Your task to perform on an android device: Search for Mexican restaurants on Maps Image 0: 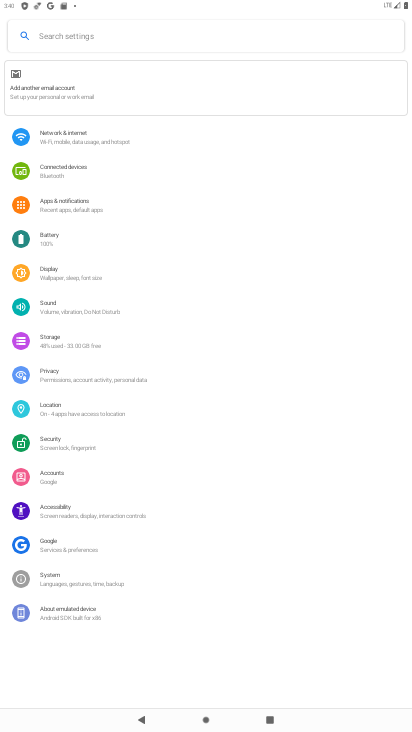
Step 0: press home button
Your task to perform on an android device: Search for Mexican restaurants on Maps Image 1: 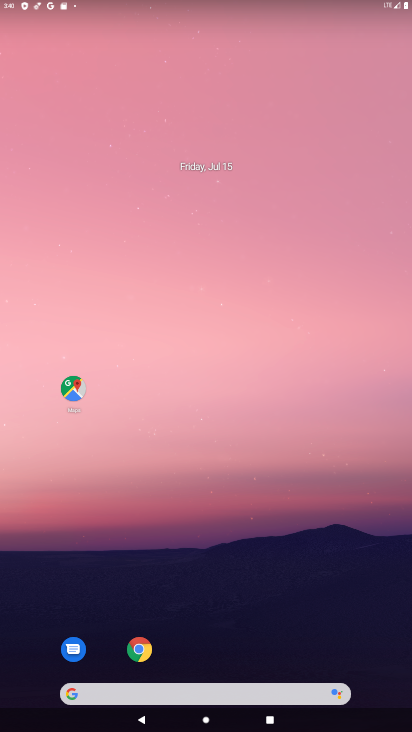
Step 1: click (80, 374)
Your task to perform on an android device: Search for Mexican restaurants on Maps Image 2: 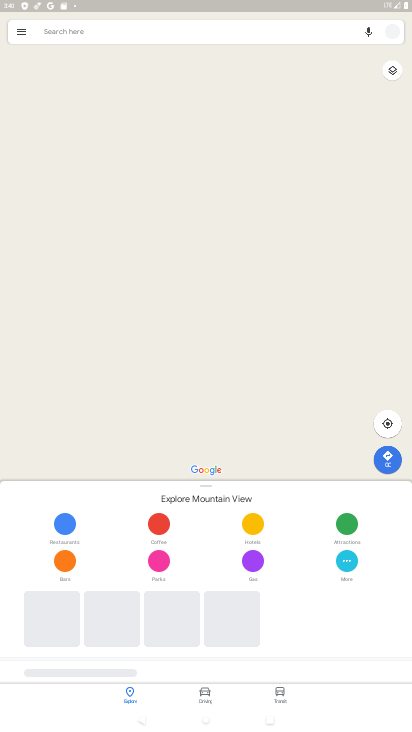
Step 2: click (125, 30)
Your task to perform on an android device: Search for Mexican restaurants on Maps Image 3: 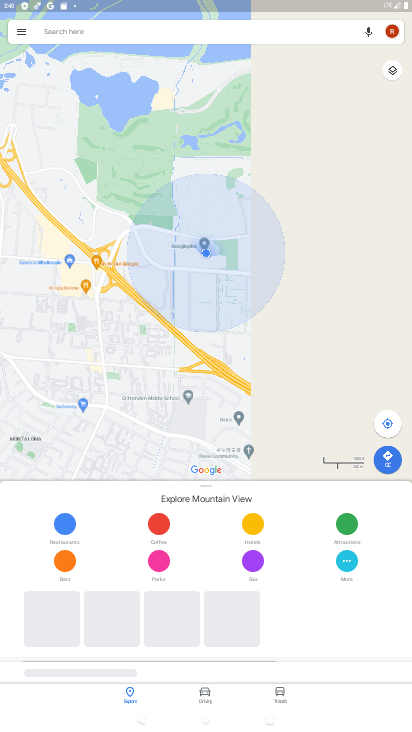
Step 3: type "Mexican restaurants"
Your task to perform on an android device: Search for Mexican restaurants on Maps Image 4: 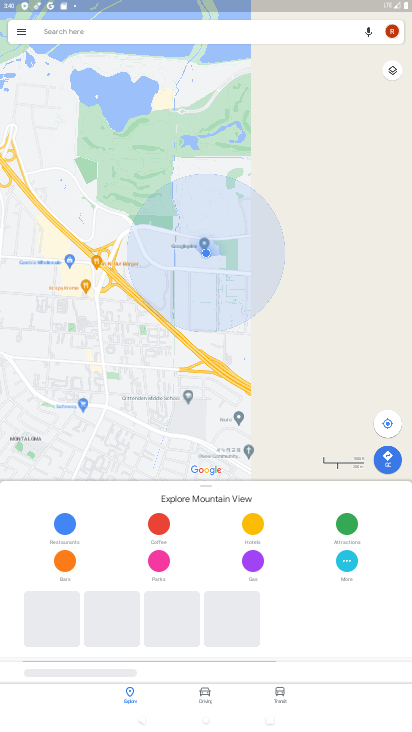
Step 4: click (80, 24)
Your task to perform on an android device: Search for Mexican restaurants on Maps Image 5: 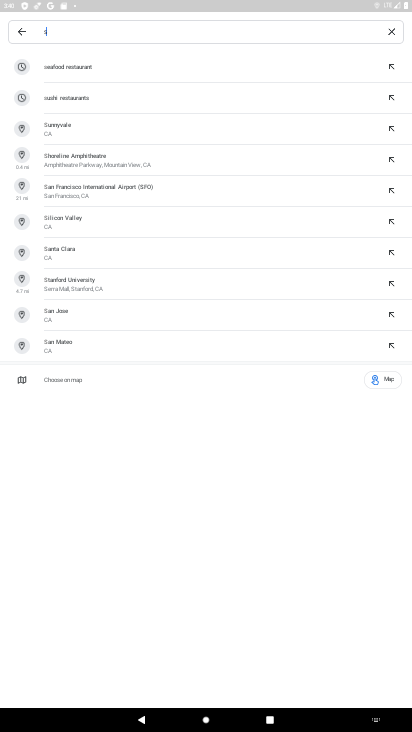
Step 5: type "Mexican restaurants"
Your task to perform on an android device: Search for Mexican restaurants on Maps Image 6: 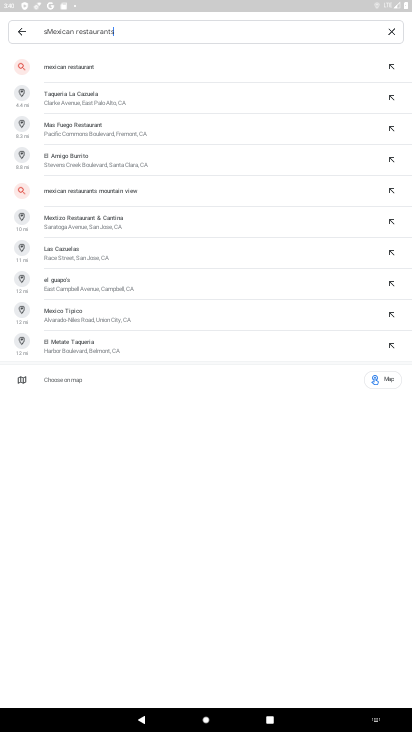
Step 6: click (110, 65)
Your task to perform on an android device: Search for Mexican restaurants on Maps Image 7: 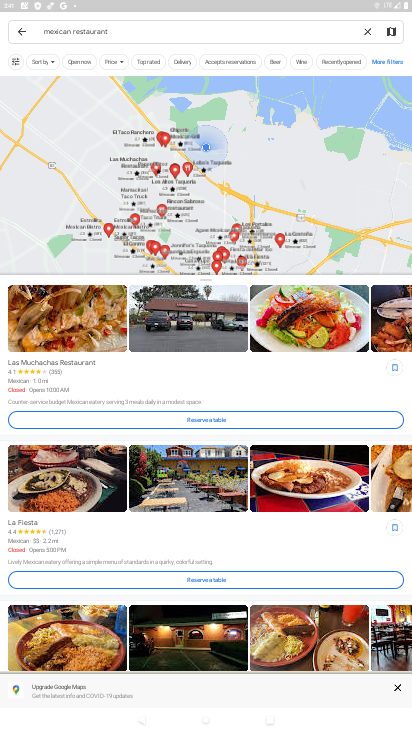
Step 7: task complete